Your task to perform on an android device: set default search engine in the chrome app Image 0: 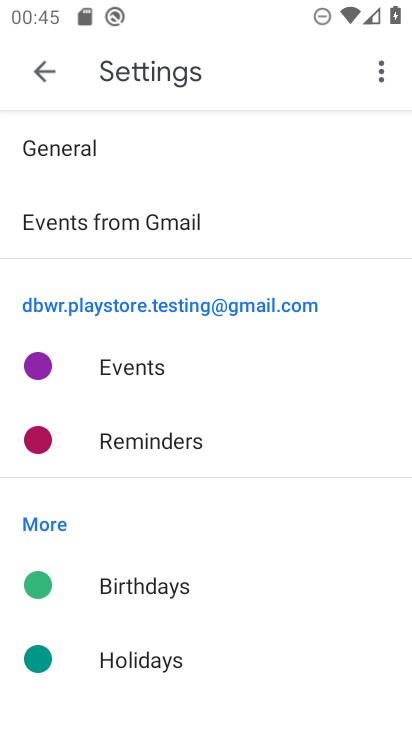
Step 0: press home button
Your task to perform on an android device: set default search engine in the chrome app Image 1: 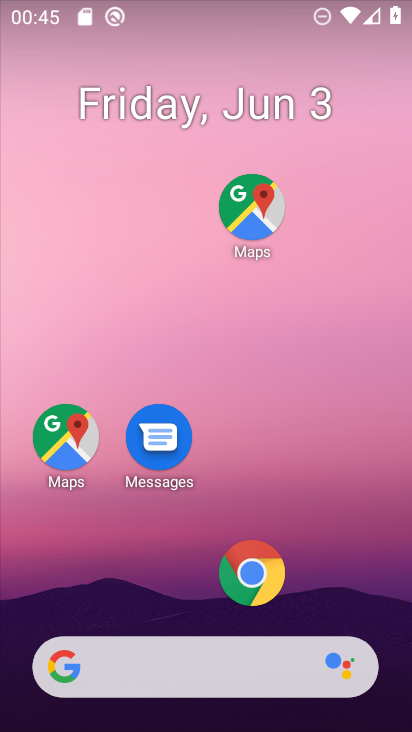
Step 1: click (246, 578)
Your task to perform on an android device: set default search engine in the chrome app Image 2: 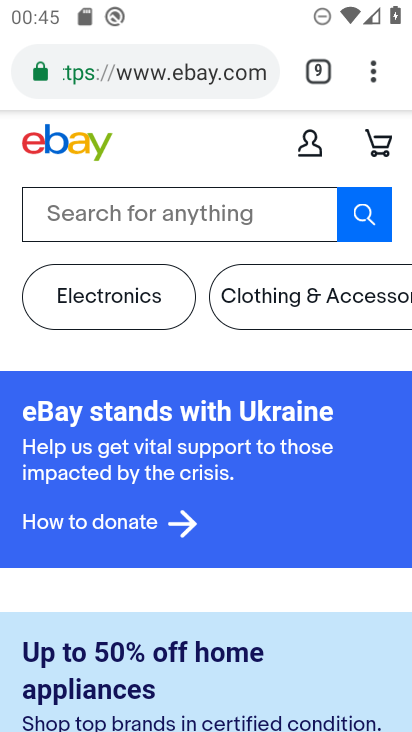
Step 2: click (385, 60)
Your task to perform on an android device: set default search engine in the chrome app Image 3: 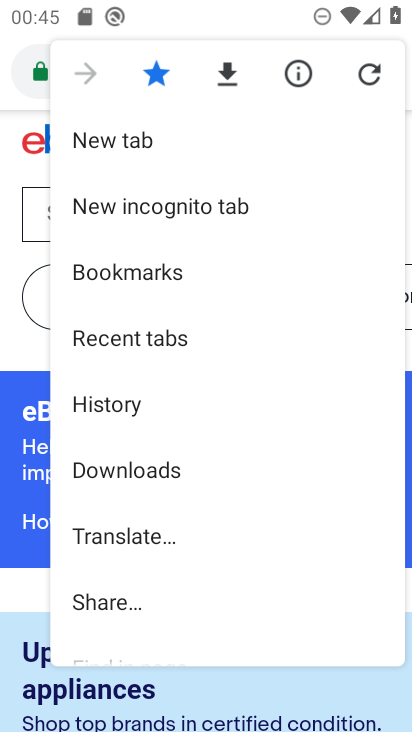
Step 3: drag from (170, 537) to (140, 294)
Your task to perform on an android device: set default search engine in the chrome app Image 4: 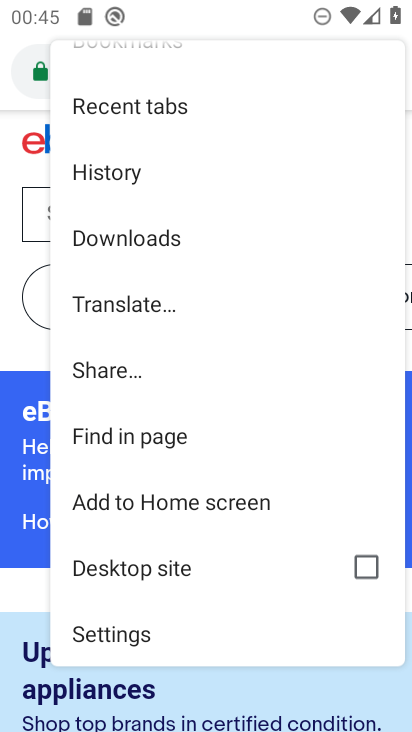
Step 4: click (137, 631)
Your task to perform on an android device: set default search engine in the chrome app Image 5: 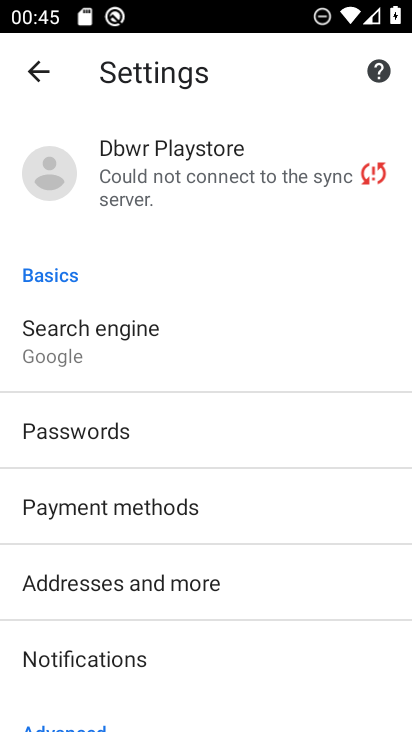
Step 5: click (165, 357)
Your task to perform on an android device: set default search engine in the chrome app Image 6: 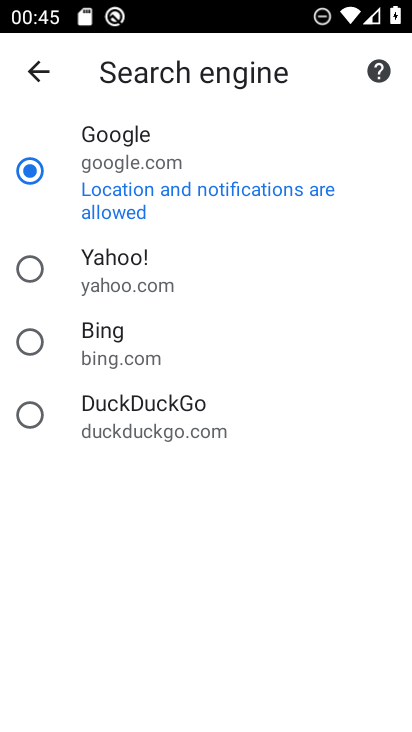
Step 6: task complete